Your task to perform on an android device: Go to Google maps Image 0: 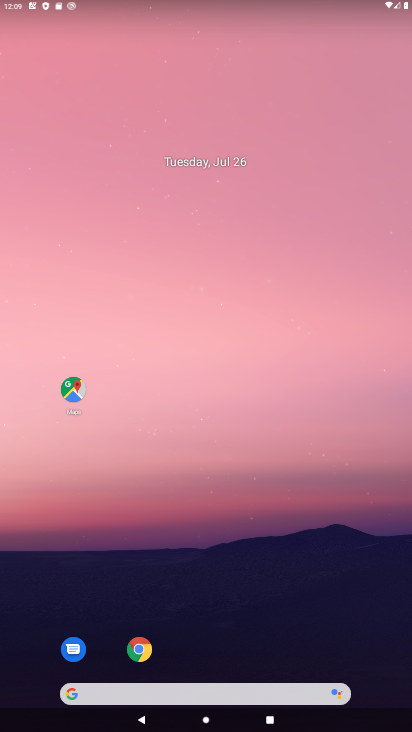
Step 0: drag from (222, 728) to (231, 147)
Your task to perform on an android device: Go to Google maps Image 1: 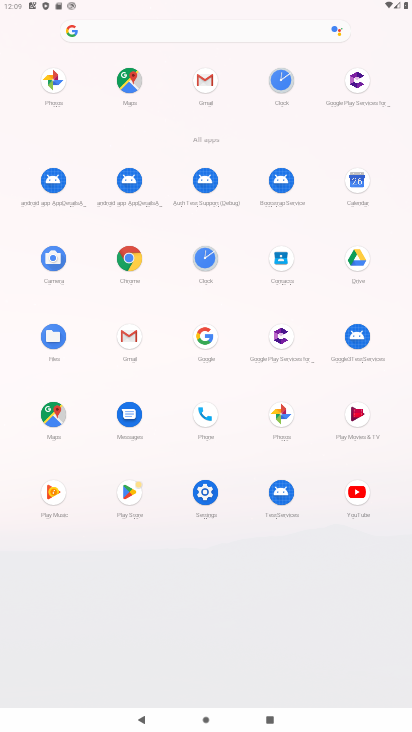
Step 1: click (52, 410)
Your task to perform on an android device: Go to Google maps Image 2: 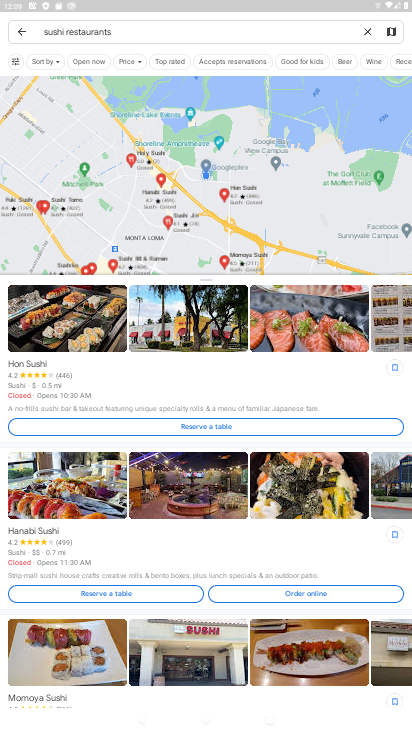
Step 2: task complete